Your task to perform on an android device: Go to location settings Image 0: 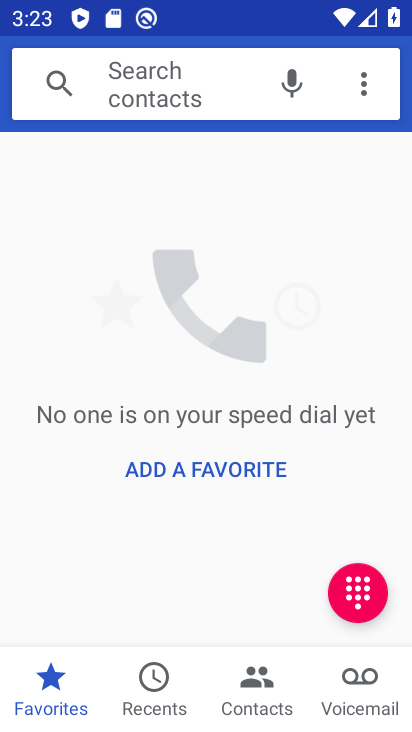
Step 0: press home button
Your task to perform on an android device: Go to location settings Image 1: 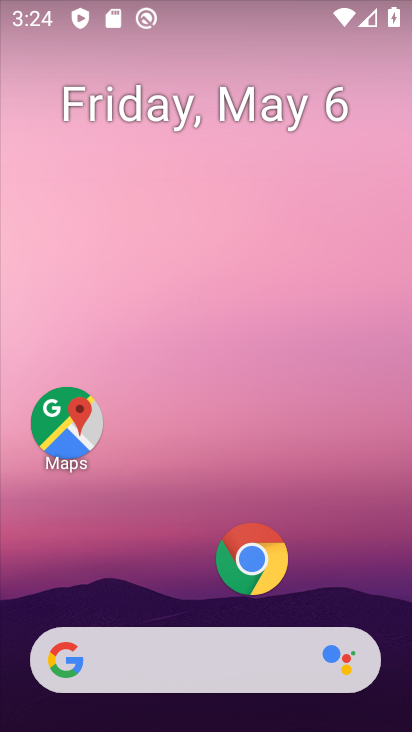
Step 1: drag from (219, 615) to (239, 11)
Your task to perform on an android device: Go to location settings Image 2: 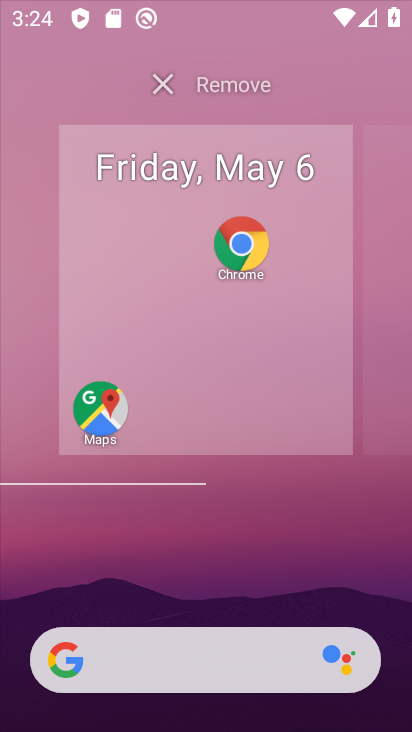
Step 2: click (198, 582)
Your task to perform on an android device: Go to location settings Image 3: 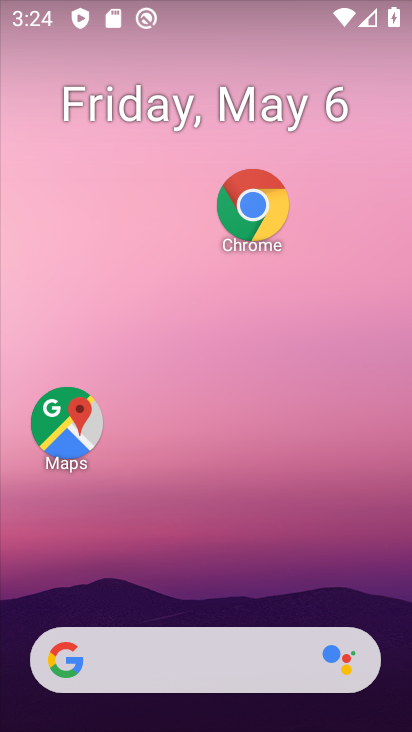
Step 3: drag from (192, 591) to (219, 34)
Your task to perform on an android device: Go to location settings Image 4: 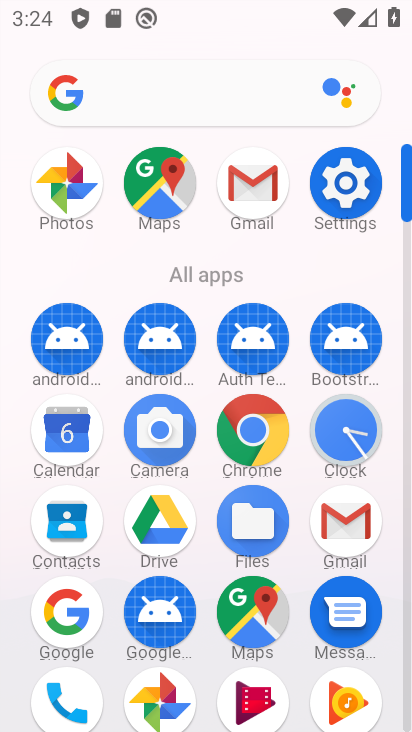
Step 4: click (349, 180)
Your task to perform on an android device: Go to location settings Image 5: 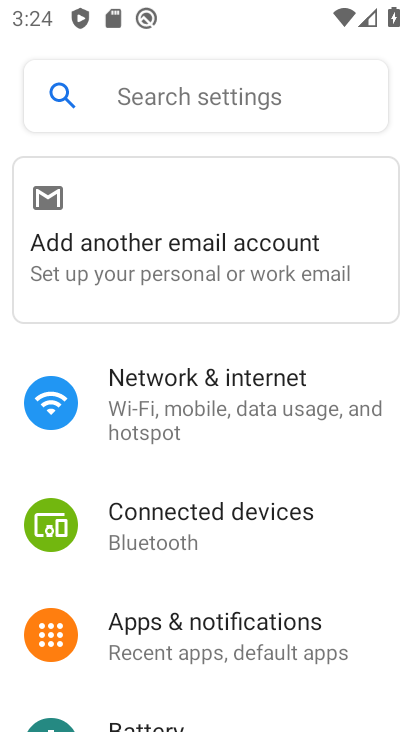
Step 5: drag from (254, 596) to (320, 17)
Your task to perform on an android device: Go to location settings Image 6: 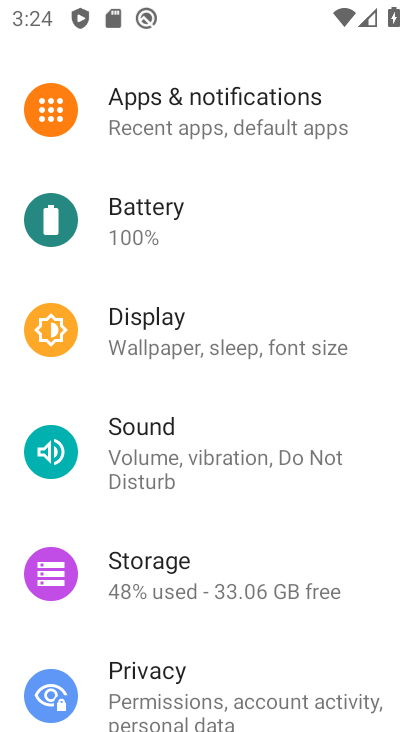
Step 6: drag from (232, 675) to (158, 164)
Your task to perform on an android device: Go to location settings Image 7: 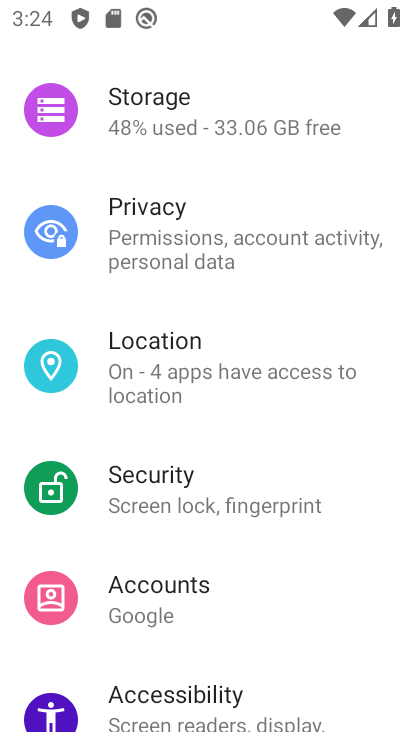
Step 7: click (173, 352)
Your task to perform on an android device: Go to location settings Image 8: 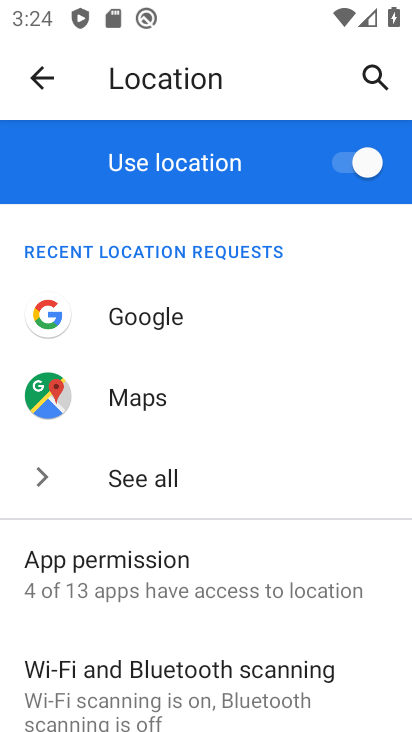
Step 8: task complete